Your task to perform on an android device: Clear the shopping cart on costco. Search for bose soundlink mini on costco, select the first entry, add it to the cart, then select checkout. Image 0: 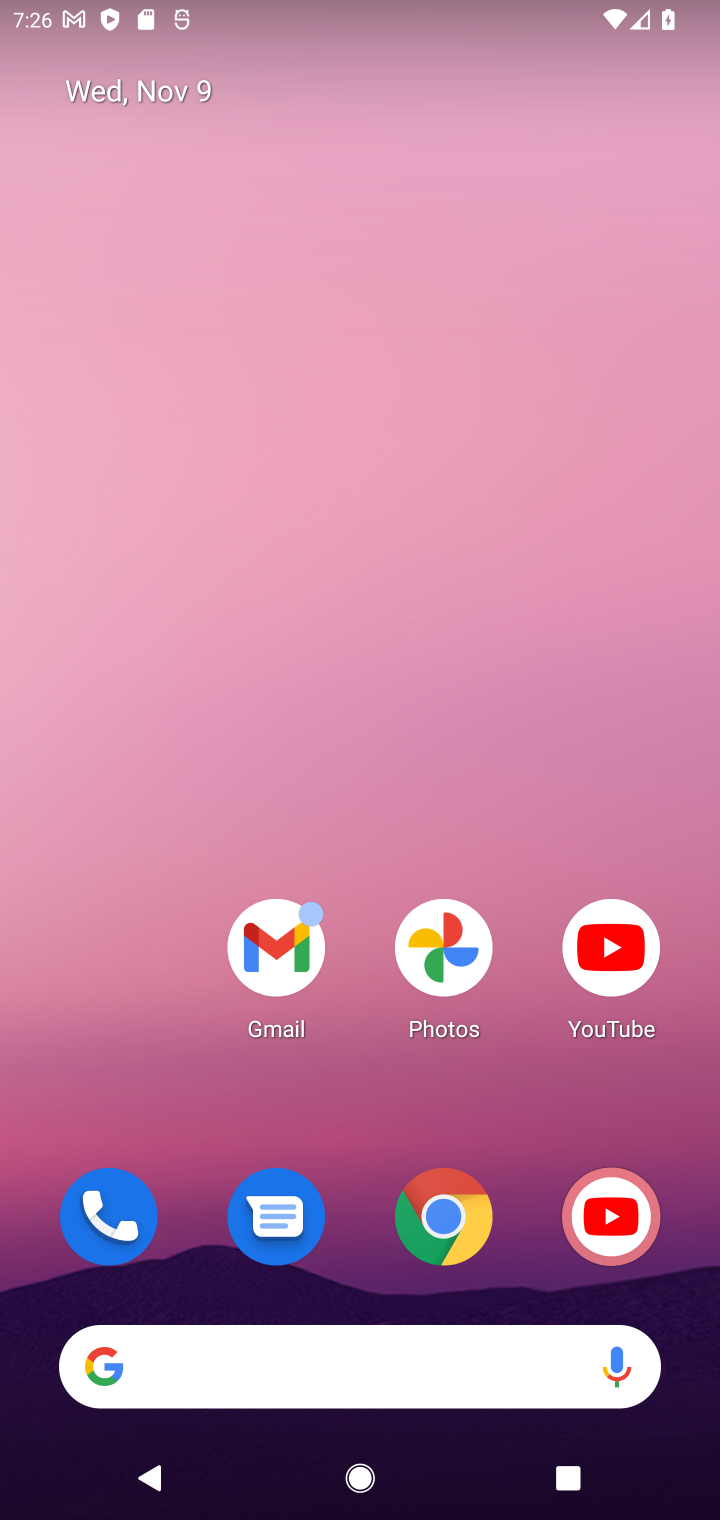
Step 0: drag from (406, 934) to (334, 231)
Your task to perform on an android device: Clear the shopping cart on costco. Search for bose soundlink mini on costco, select the first entry, add it to the cart, then select checkout. Image 1: 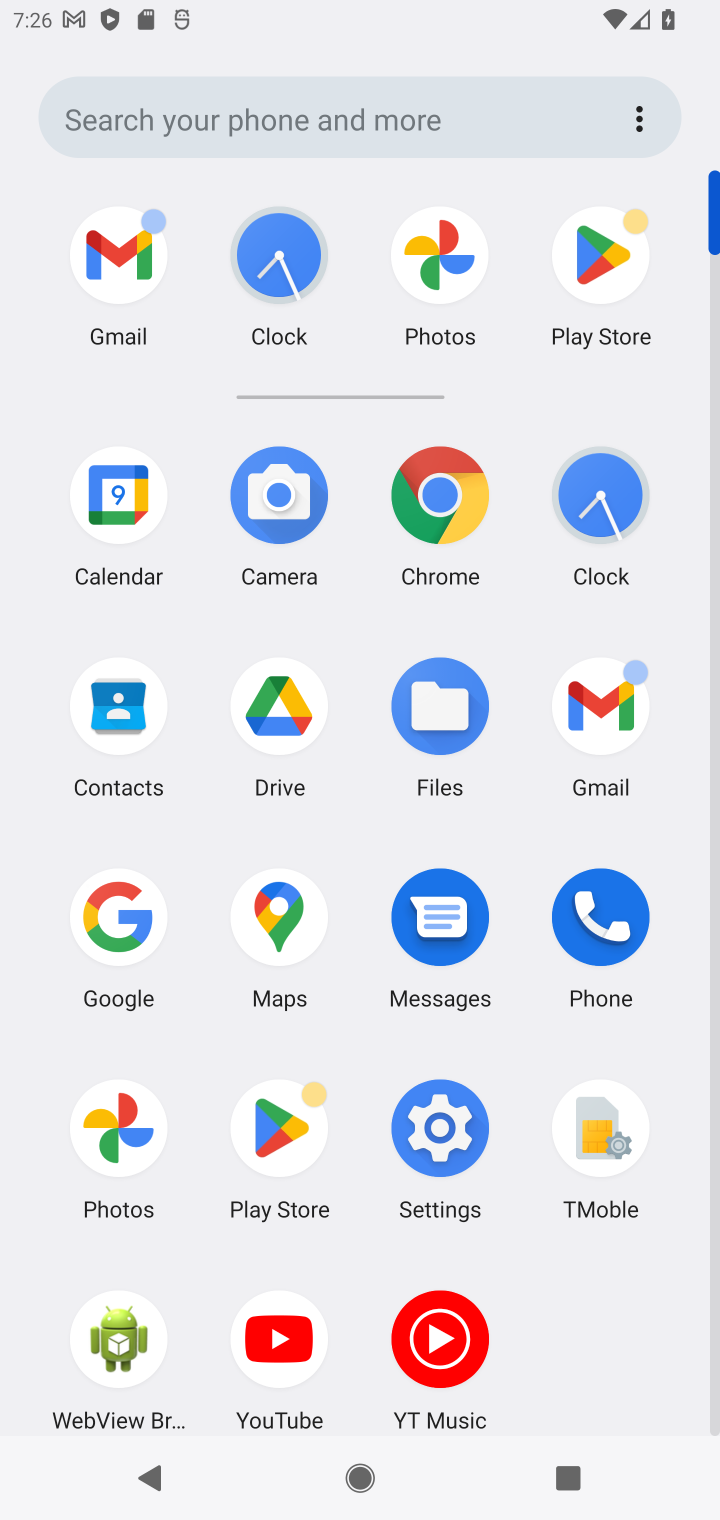
Step 1: click (443, 503)
Your task to perform on an android device: Clear the shopping cart on costco. Search for bose soundlink mini on costco, select the first entry, add it to the cart, then select checkout. Image 2: 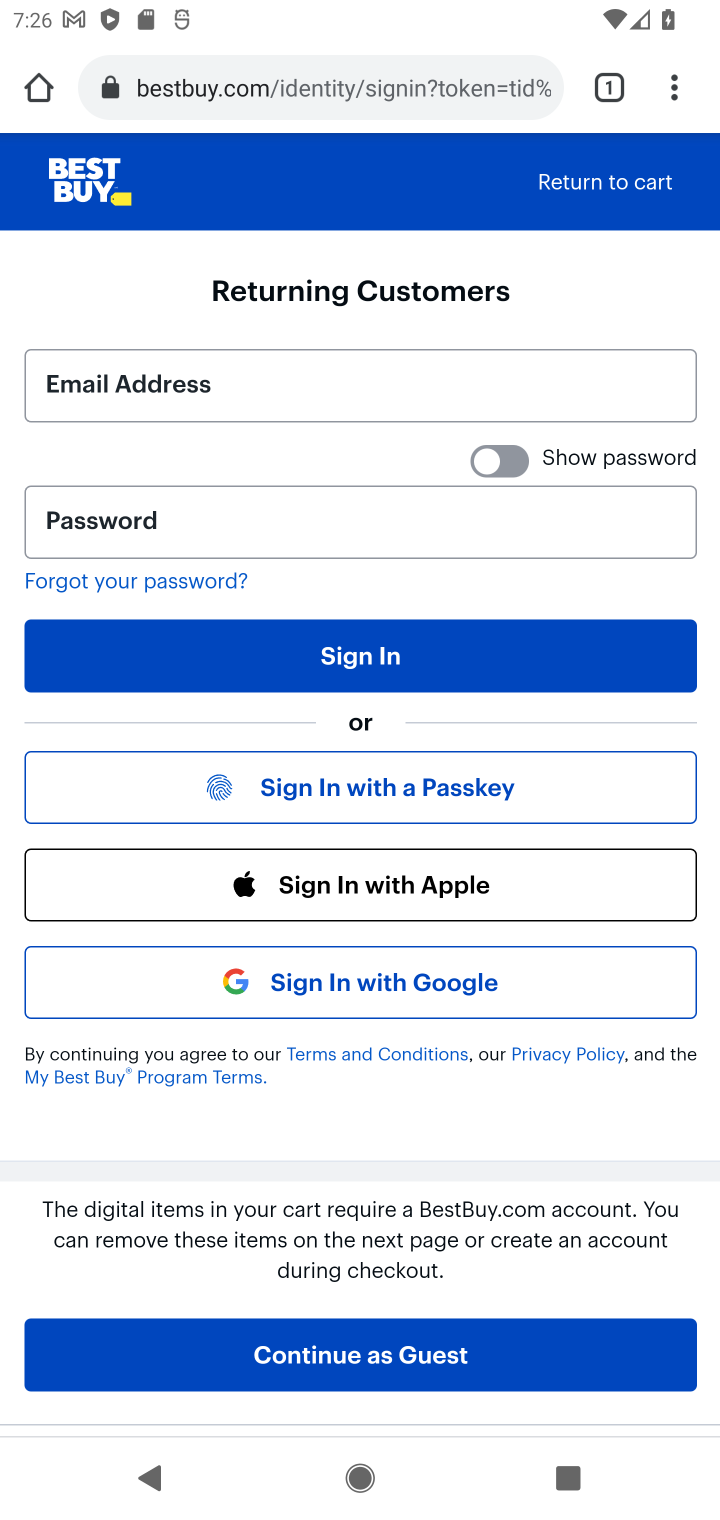
Step 2: click (407, 72)
Your task to perform on an android device: Clear the shopping cart on costco. Search for bose soundlink mini on costco, select the first entry, add it to the cart, then select checkout. Image 3: 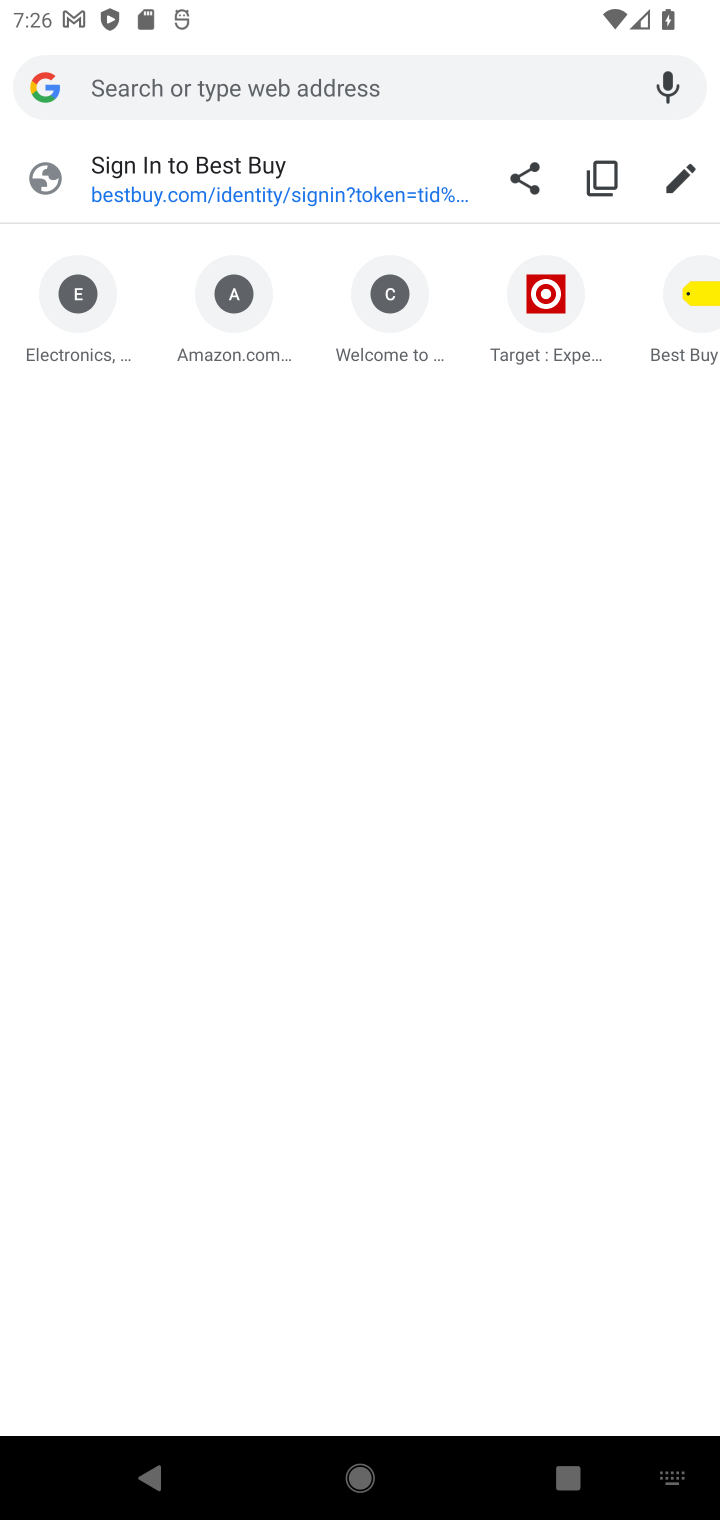
Step 3: type "costco.com"
Your task to perform on an android device: Clear the shopping cart on costco. Search for bose soundlink mini on costco, select the first entry, add it to the cart, then select checkout. Image 4: 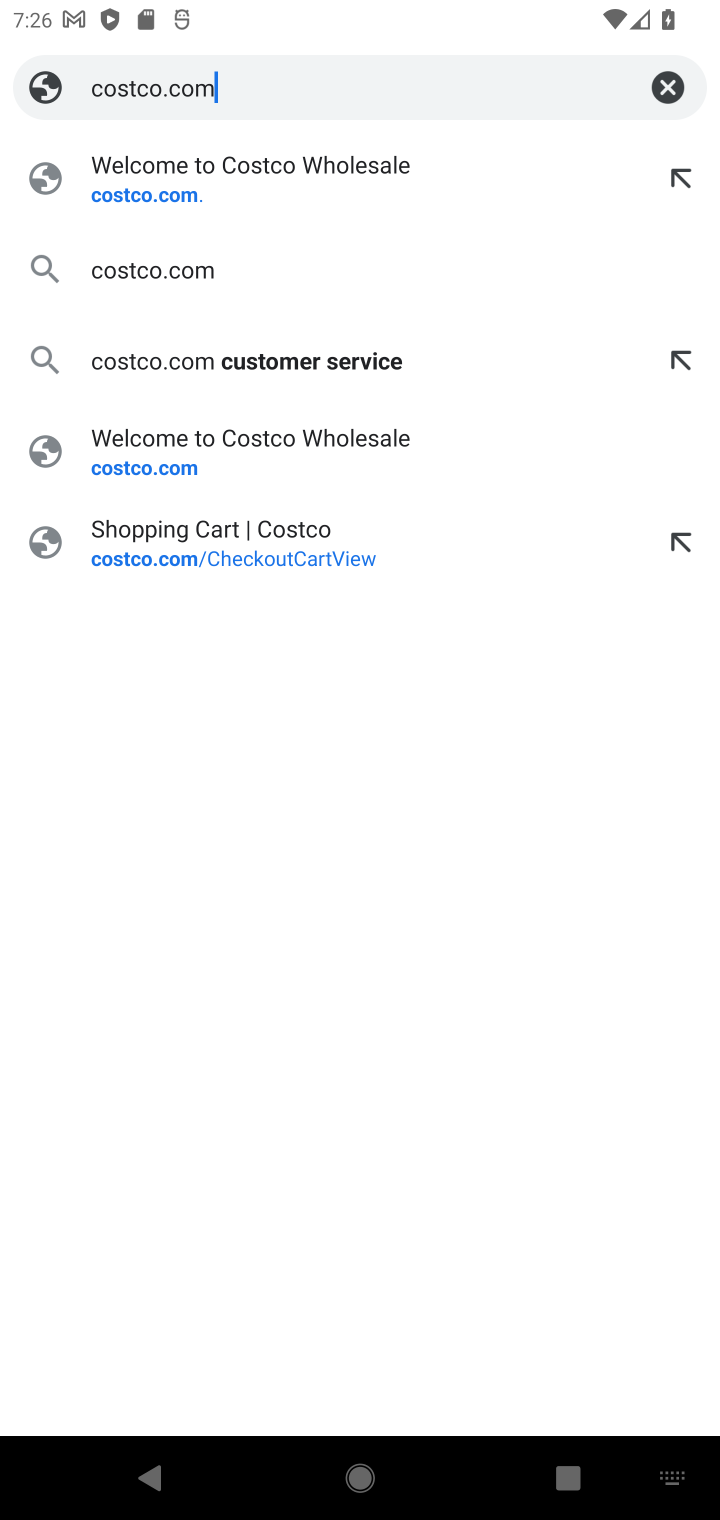
Step 4: press enter
Your task to perform on an android device: Clear the shopping cart on costco. Search for bose soundlink mini on costco, select the first entry, add it to the cart, then select checkout. Image 5: 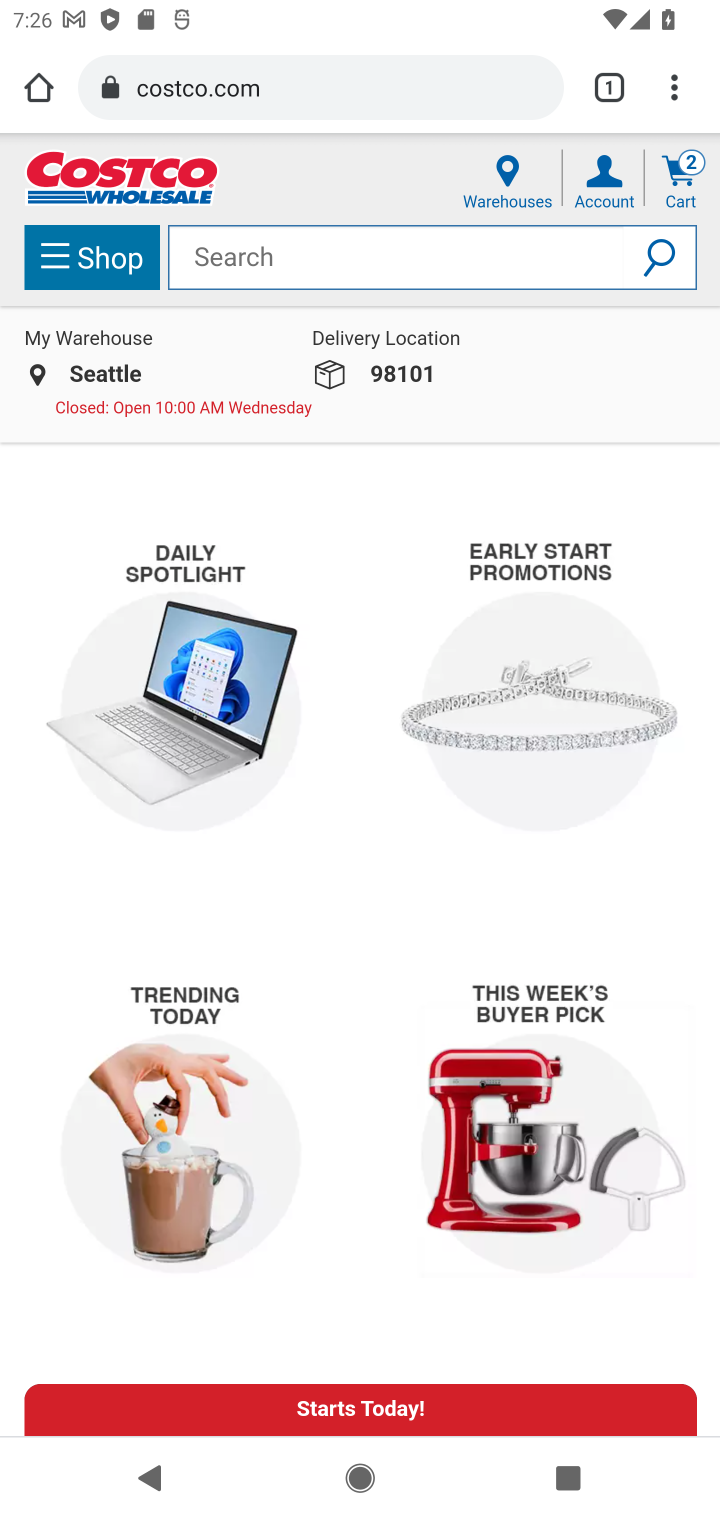
Step 5: click (682, 169)
Your task to perform on an android device: Clear the shopping cart on costco. Search for bose soundlink mini on costco, select the first entry, add it to the cart, then select checkout. Image 6: 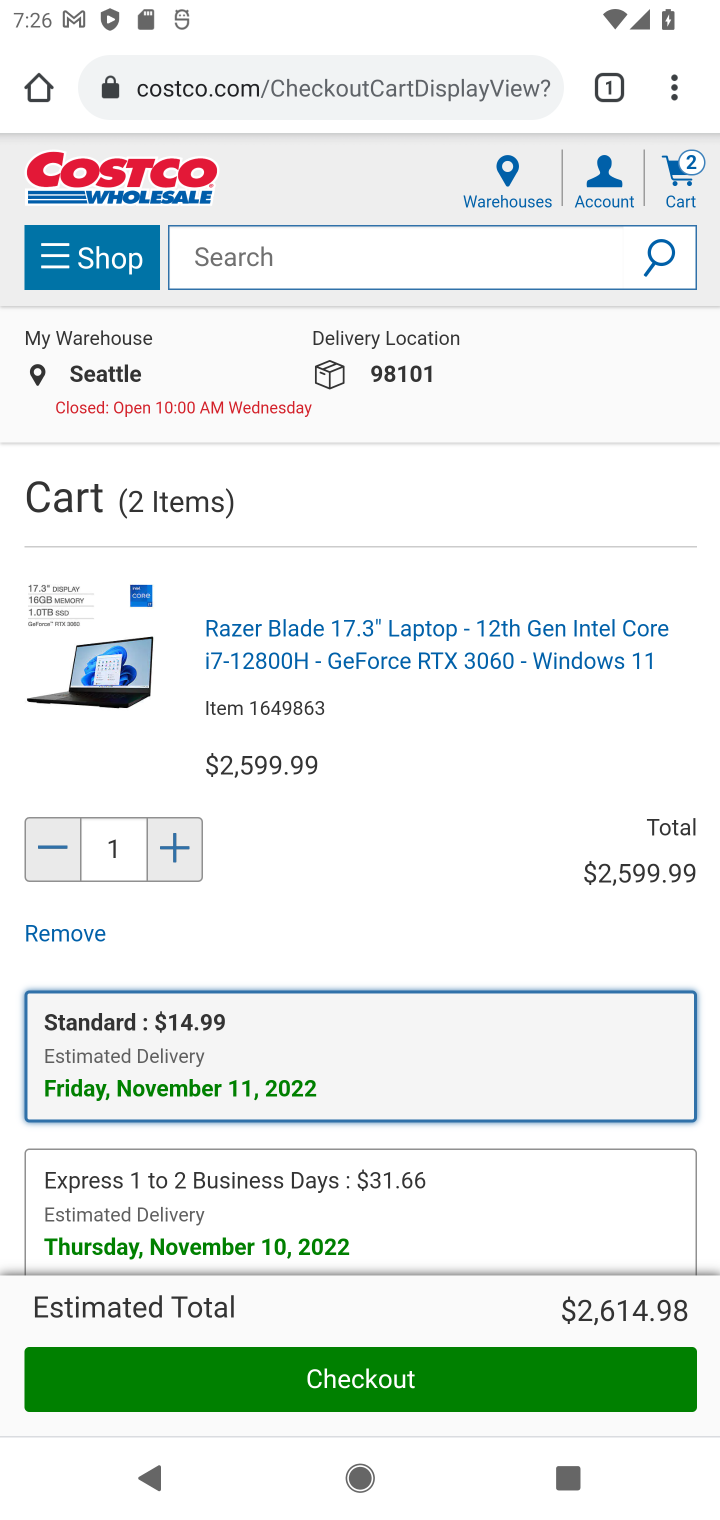
Step 6: click (75, 931)
Your task to perform on an android device: Clear the shopping cart on costco. Search for bose soundlink mini on costco, select the first entry, add it to the cart, then select checkout. Image 7: 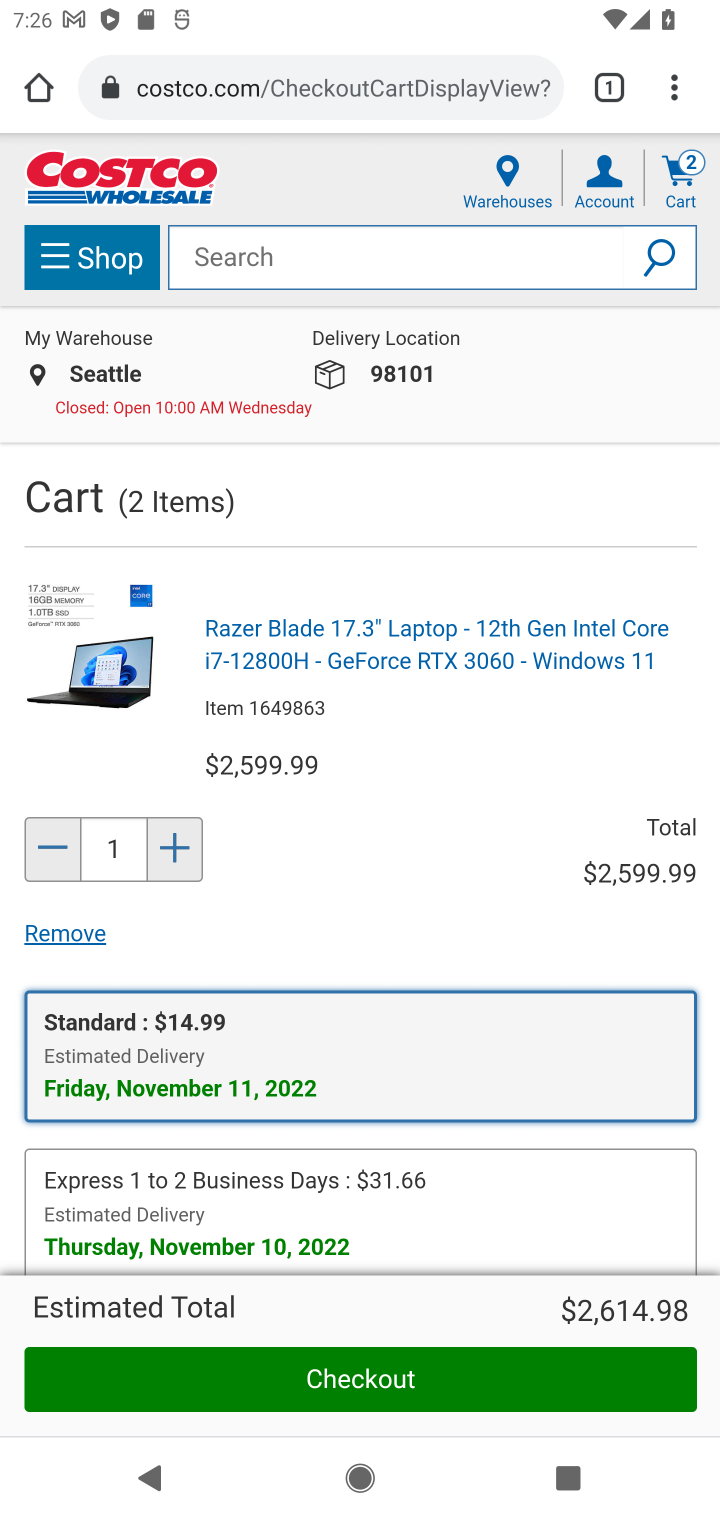
Step 7: click (65, 932)
Your task to perform on an android device: Clear the shopping cart on costco. Search for bose soundlink mini on costco, select the first entry, add it to the cart, then select checkout. Image 8: 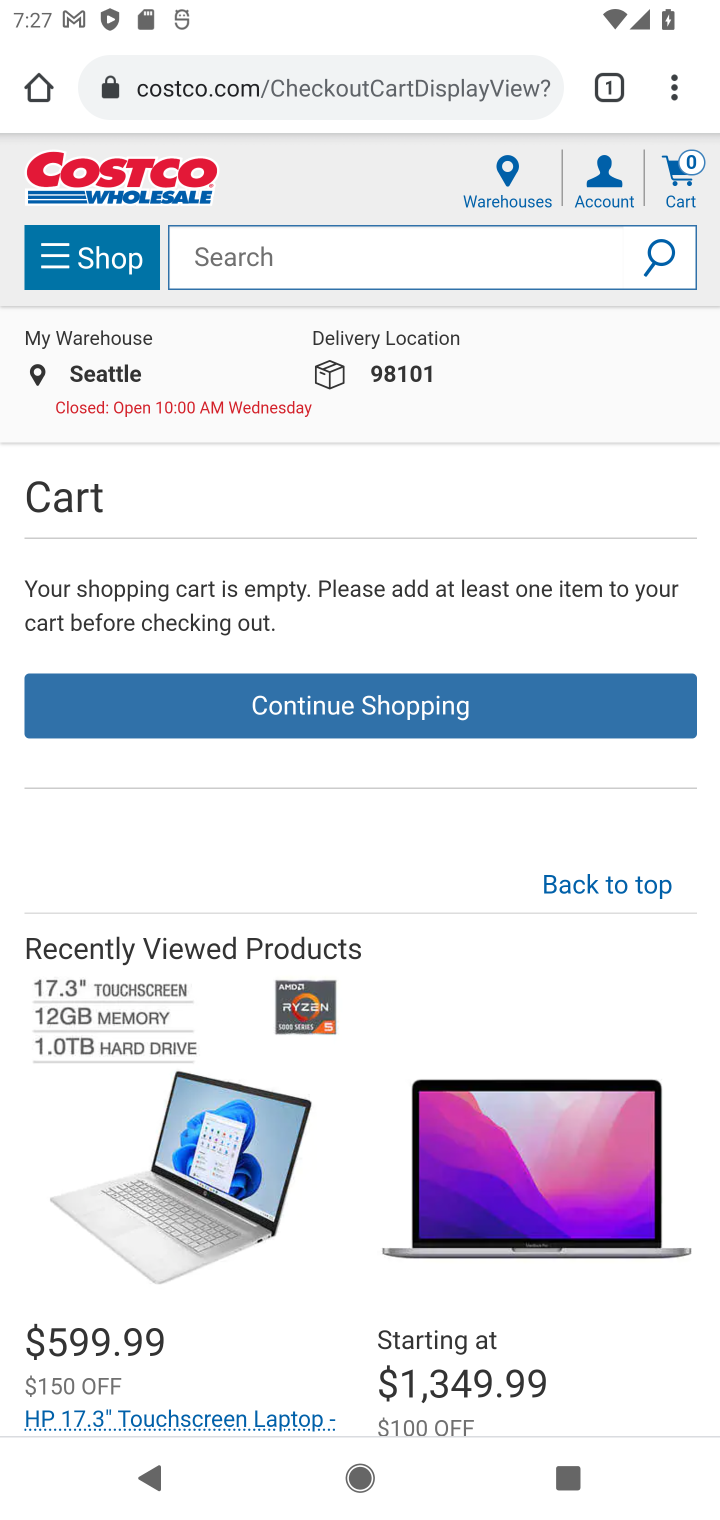
Step 8: click (469, 245)
Your task to perform on an android device: Clear the shopping cart on costco. Search for bose soundlink mini on costco, select the first entry, add it to the cart, then select checkout. Image 9: 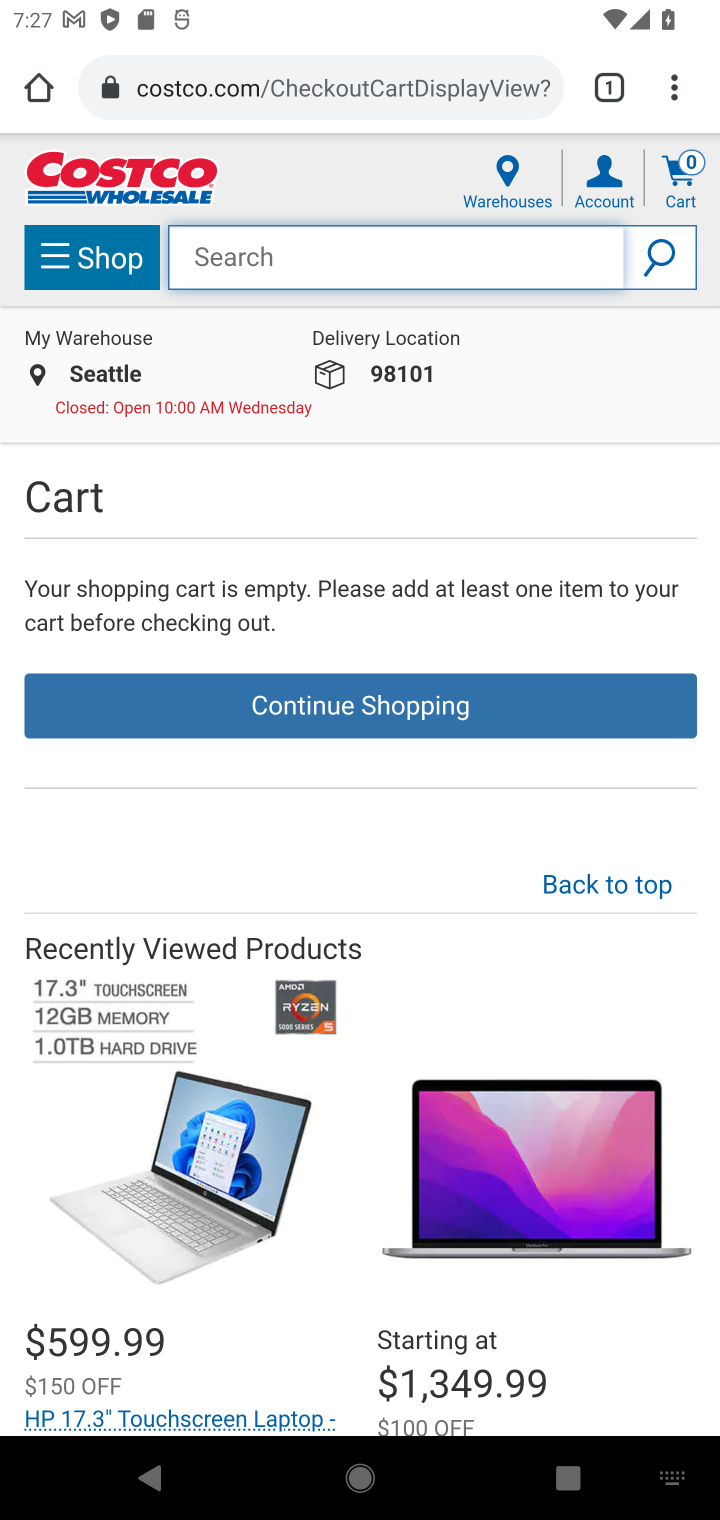
Step 9: type "bose soundlink mini"
Your task to perform on an android device: Clear the shopping cart on costco. Search for bose soundlink mini on costco, select the first entry, add it to the cart, then select checkout. Image 10: 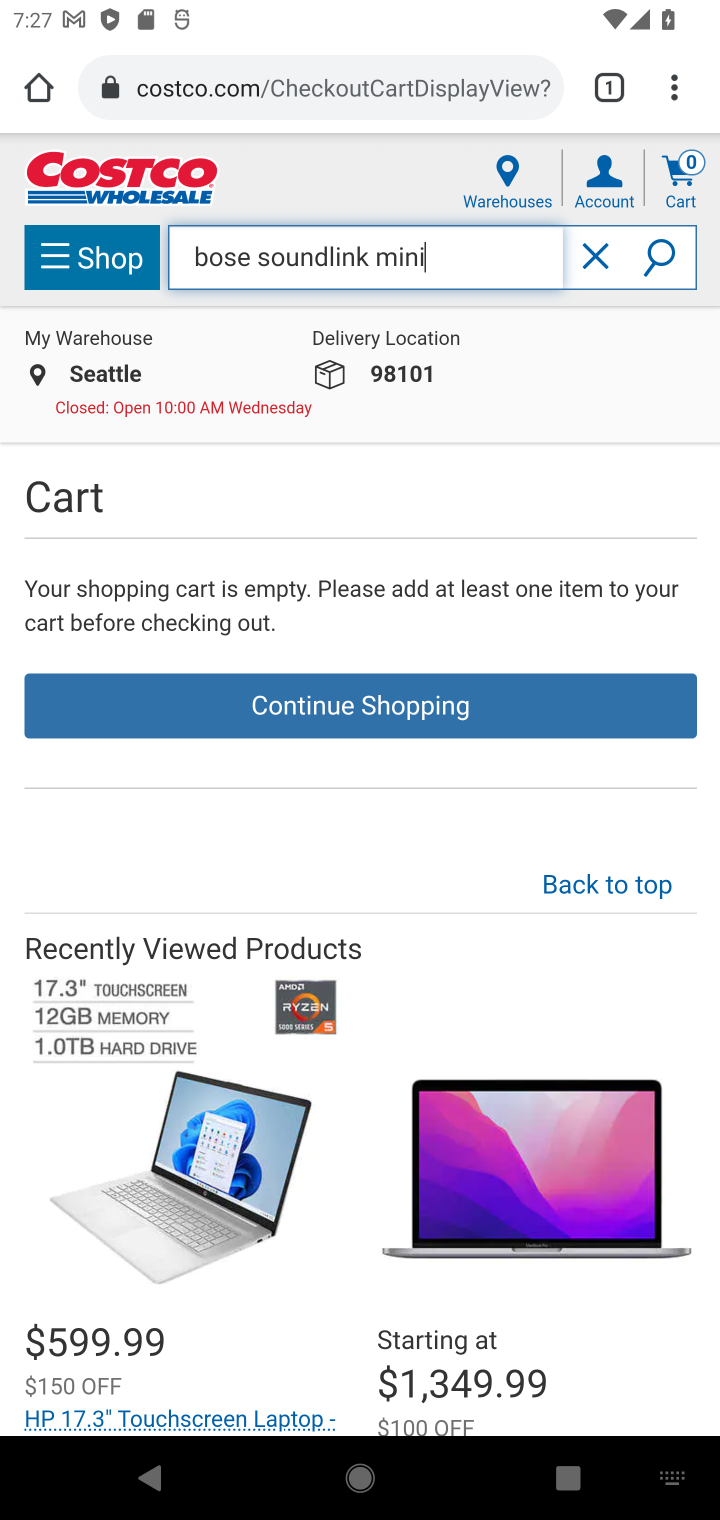
Step 10: press enter
Your task to perform on an android device: Clear the shopping cart on costco. Search for bose soundlink mini on costco, select the first entry, add it to the cart, then select checkout. Image 11: 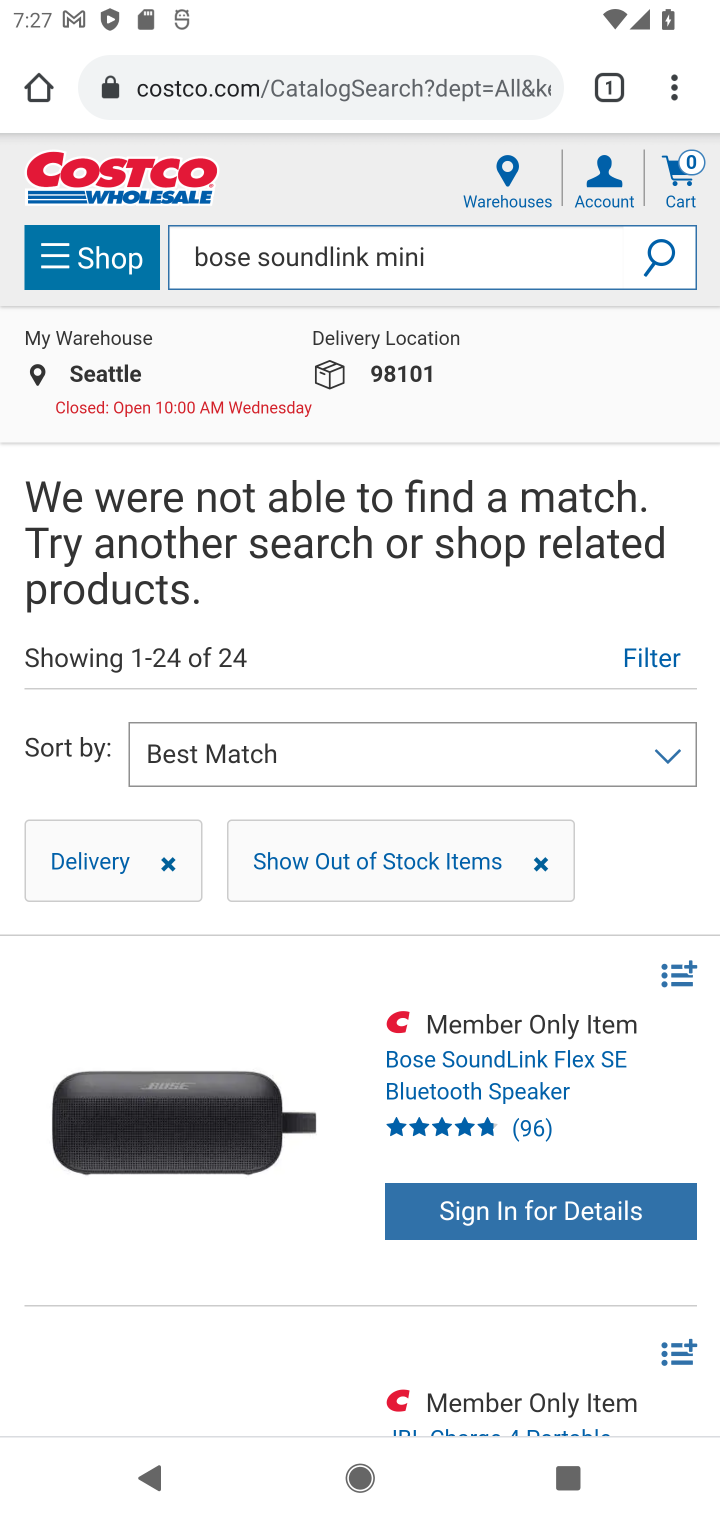
Step 11: task complete